Your task to perform on an android device: Go to CNN.com Image 0: 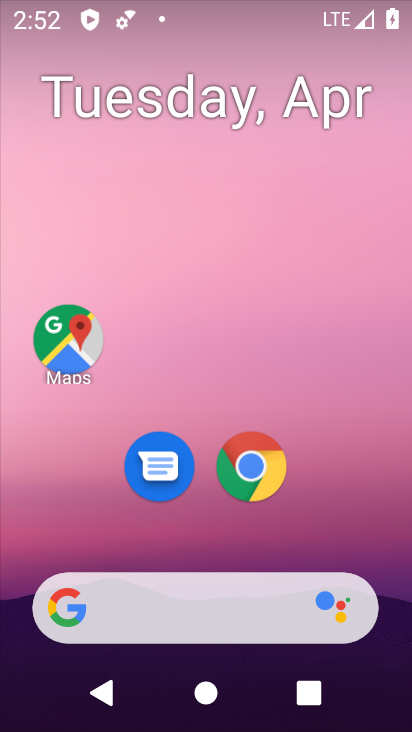
Step 0: click (233, 472)
Your task to perform on an android device: Go to CNN.com Image 1: 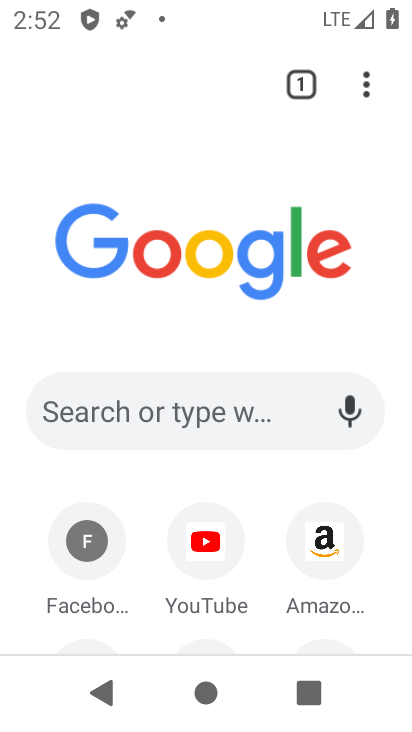
Step 1: click (188, 428)
Your task to perform on an android device: Go to CNN.com Image 2: 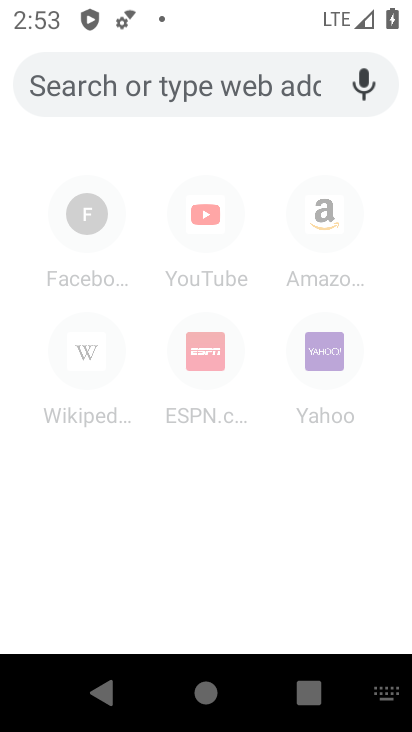
Step 2: type "cnn.com"
Your task to perform on an android device: Go to CNN.com Image 3: 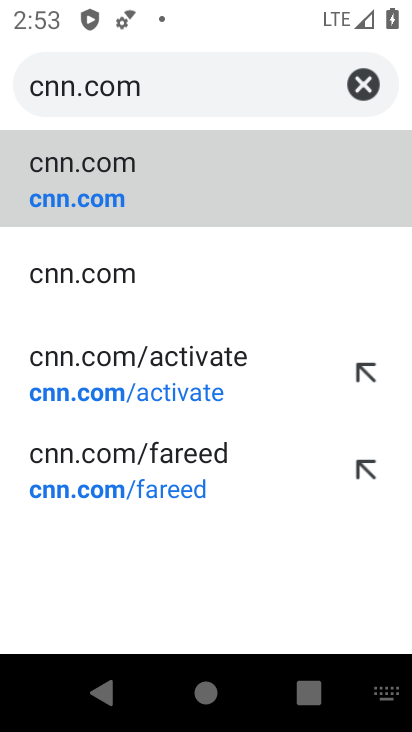
Step 3: click (118, 172)
Your task to perform on an android device: Go to CNN.com Image 4: 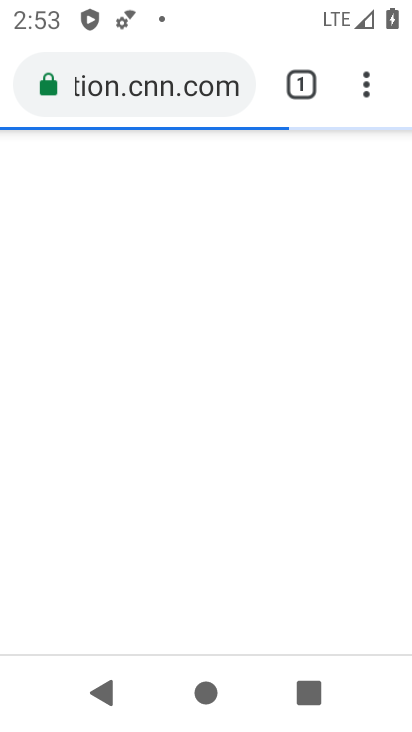
Step 4: task complete